Your task to perform on an android device: choose inbox layout in the gmail app Image 0: 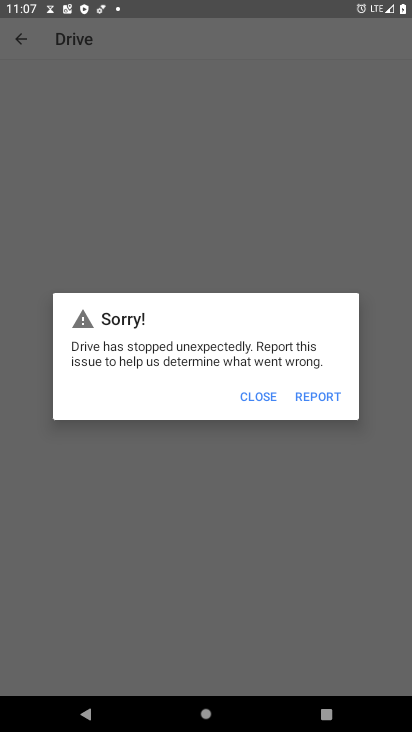
Step 0: press home button
Your task to perform on an android device: choose inbox layout in the gmail app Image 1: 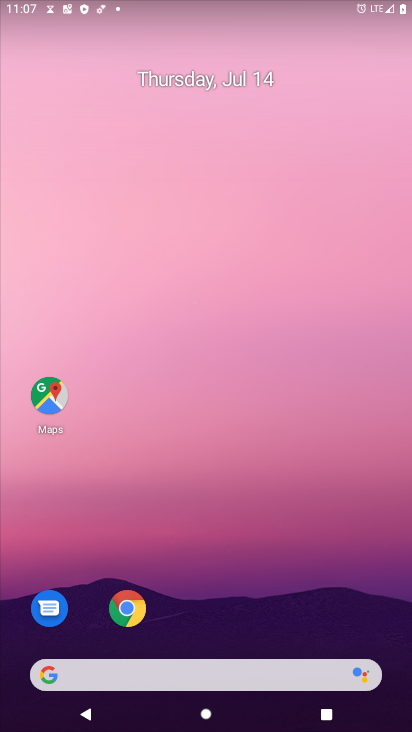
Step 1: drag from (243, 644) to (199, 92)
Your task to perform on an android device: choose inbox layout in the gmail app Image 2: 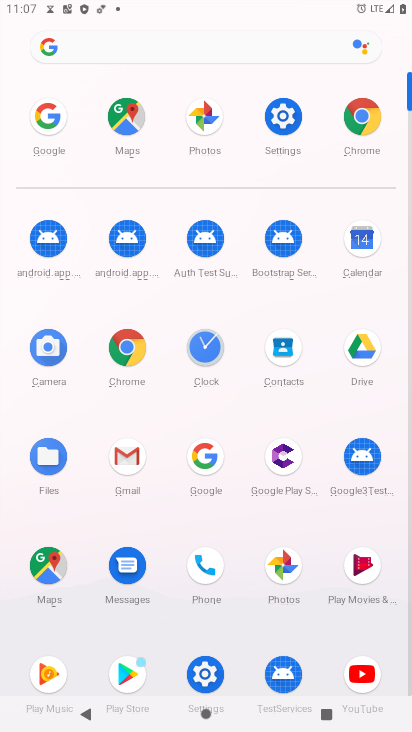
Step 2: click (135, 454)
Your task to perform on an android device: choose inbox layout in the gmail app Image 3: 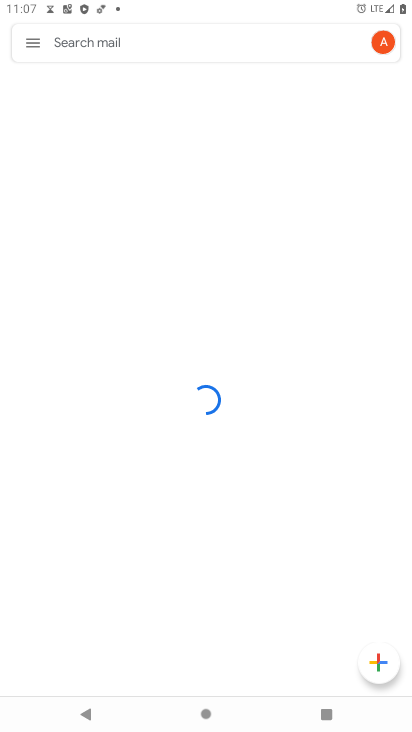
Step 3: click (31, 46)
Your task to perform on an android device: choose inbox layout in the gmail app Image 4: 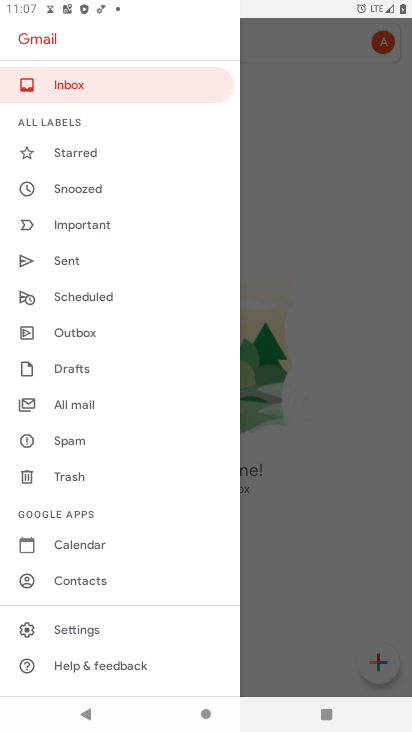
Step 4: click (80, 627)
Your task to perform on an android device: choose inbox layout in the gmail app Image 5: 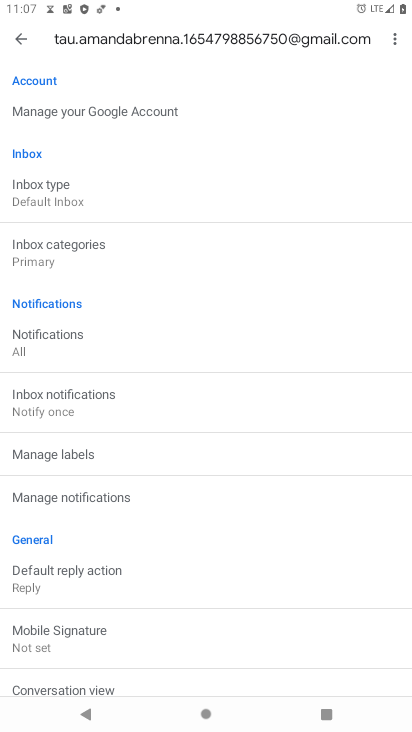
Step 5: click (41, 189)
Your task to perform on an android device: choose inbox layout in the gmail app Image 6: 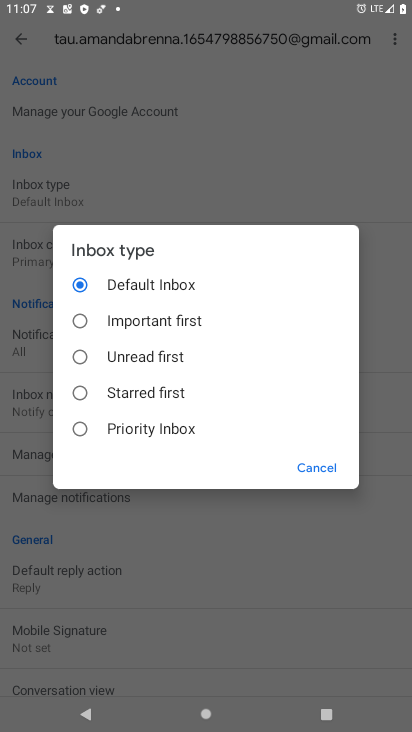
Step 6: click (78, 431)
Your task to perform on an android device: choose inbox layout in the gmail app Image 7: 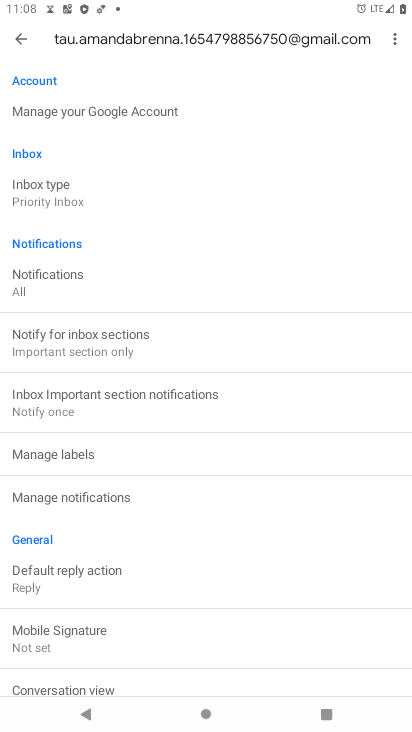
Step 7: task complete